Your task to perform on an android device: turn off notifications settings in the gmail app Image 0: 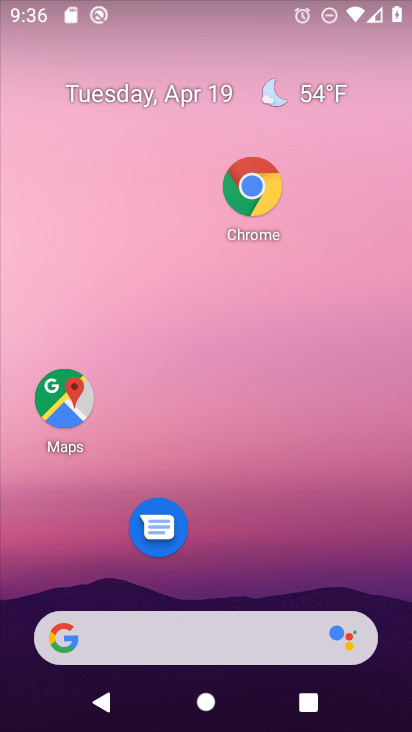
Step 0: drag from (258, 609) to (227, 323)
Your task to perform on an android device: turn off notifications settings in the gmail app Image 1: 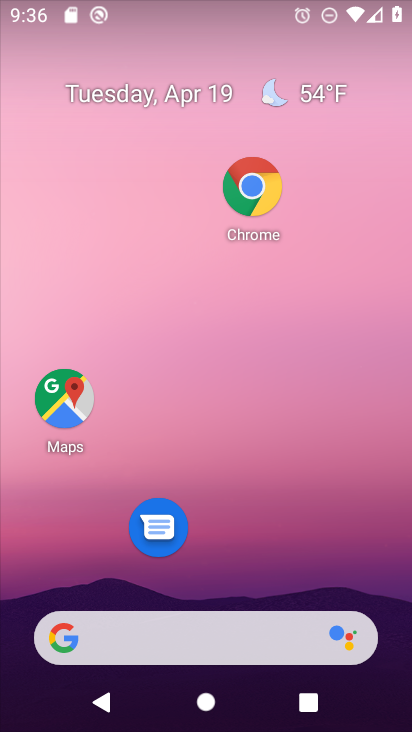
Step 1: drag from (231, 417) to (245, 178)
Your task to perform on an android device: turn off notifications settings in the gmail app Image 2: 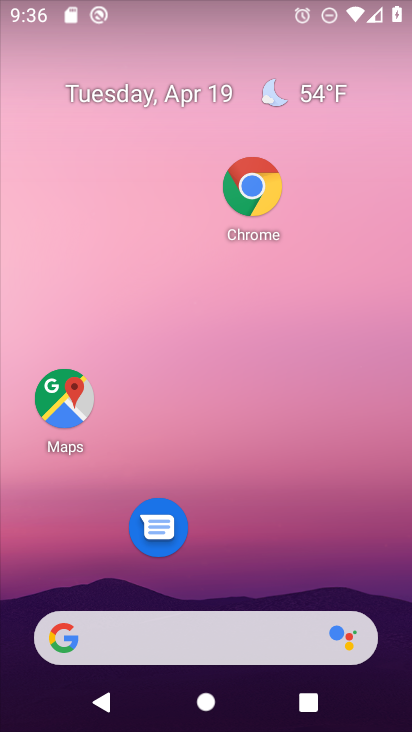
Step 2: drag from (292, 476) to (346, 132)
Your task to perform on an android device: turn off notifications settings in the gmail app Image 3: 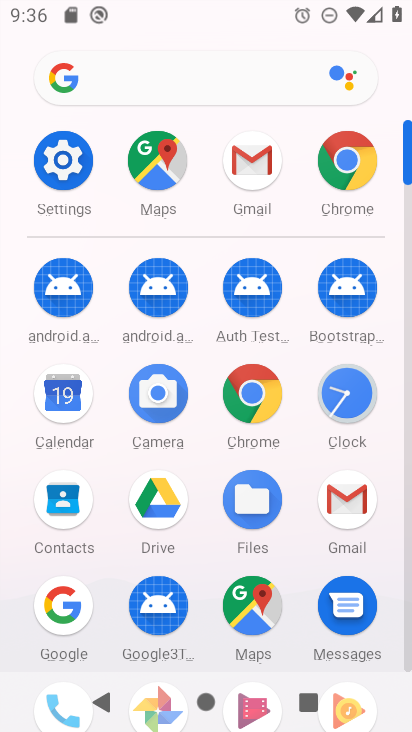
Step 3: click (239, 166)
Your task to perform on an android device: turn off notifications settings in the gmail app Image 4: 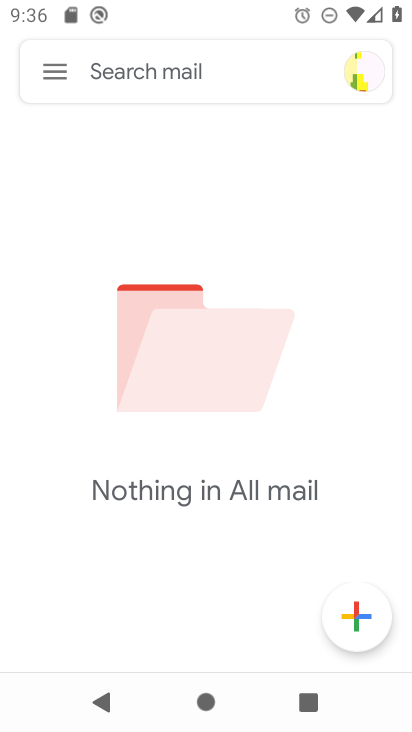
Step 4: click (52, 60)
Your task to perform on an android device: turn off notifications settings in the gmail app Image 5: 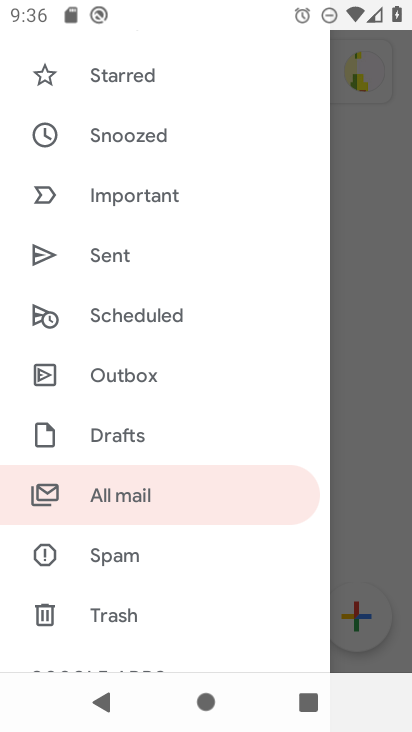
Step 5: drag from (146, 631) to (220, 152)
Your task to perform on an android device: turn off notifications settings in the gmail app Image 6: 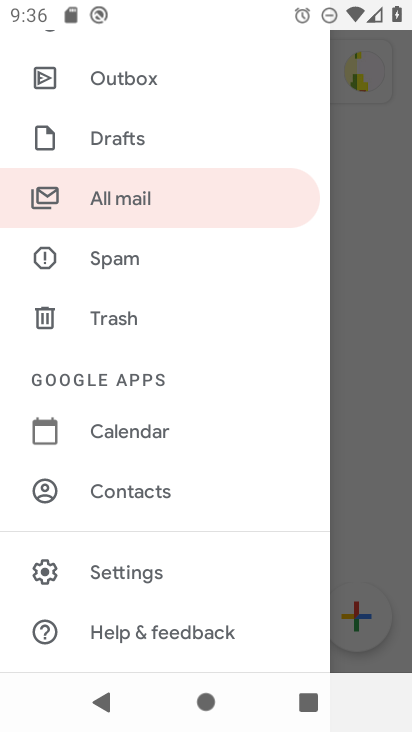
Step 6: click (132, 565)
Your task to perform on an android device: turn off notifications settings in the gmail app Image 7: 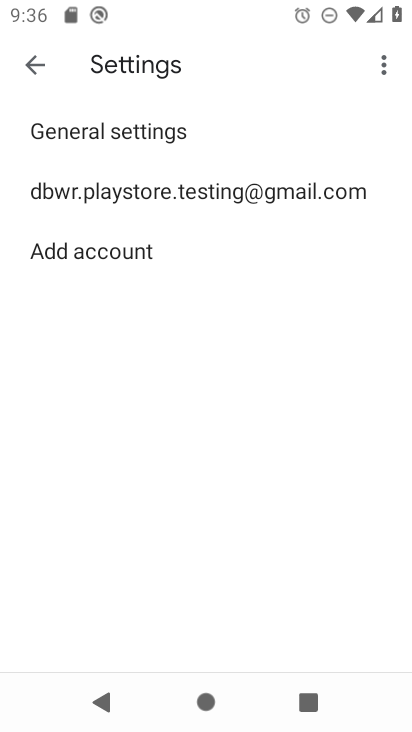
Step 7: click (135, 187)
Your task to perform on an android device: turn off notifications settings in the gmail app Image 8: 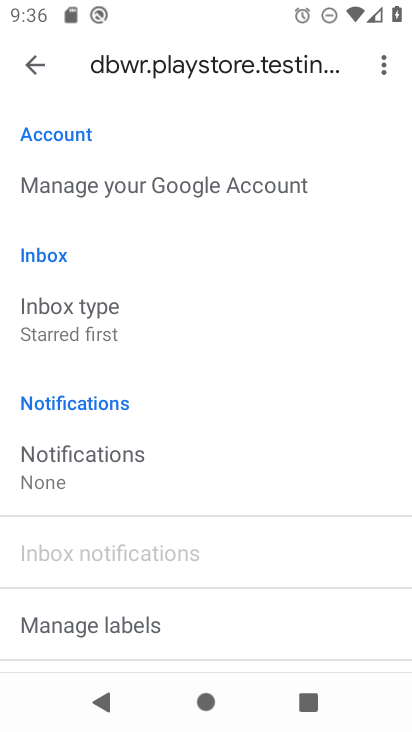
Step 8: click (163, 466)
Your task to perform on an android device: turn off notifications settings in the gmail app Image 9: 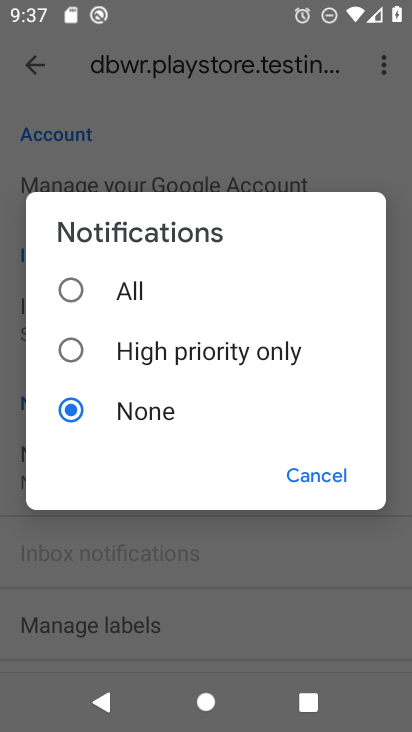
Step 9: task complete